Your task to perform on an android device: turn off notifications settings in the gmail app Image 0: 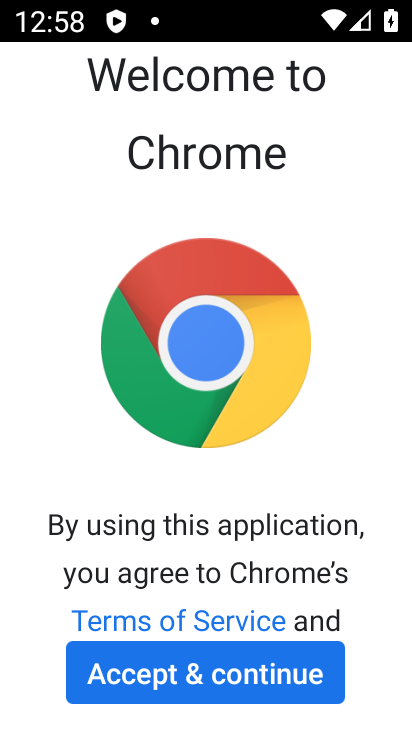
Step 0: click (357, 548)
Your task to perform on an android device: turn off notifications settings in the gmail app Image 1: 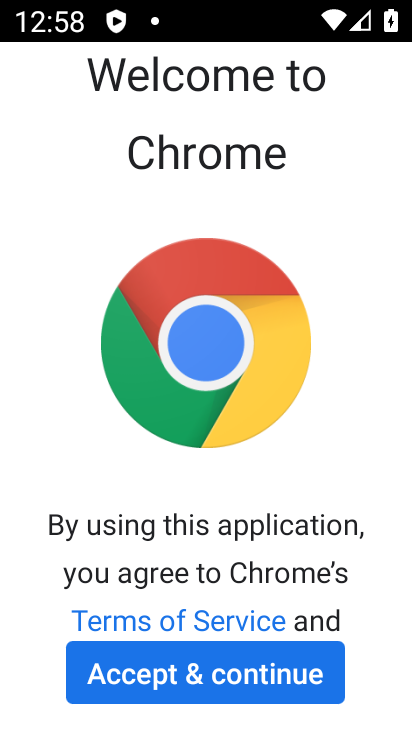
Step 1: press home button
Your task to perform on an android device: turn off notifications settings in the gmail app Image 2: 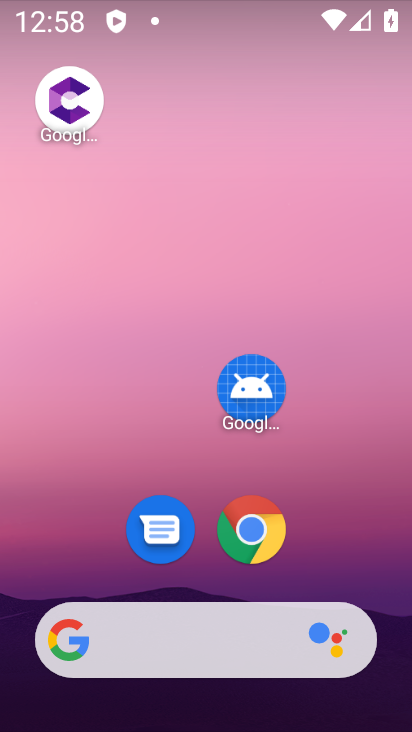
Step 2: drag from (232, 594) to (220, 76)
Your task to perform on an android device: turn off notifications settings in the gmail app Image 3: 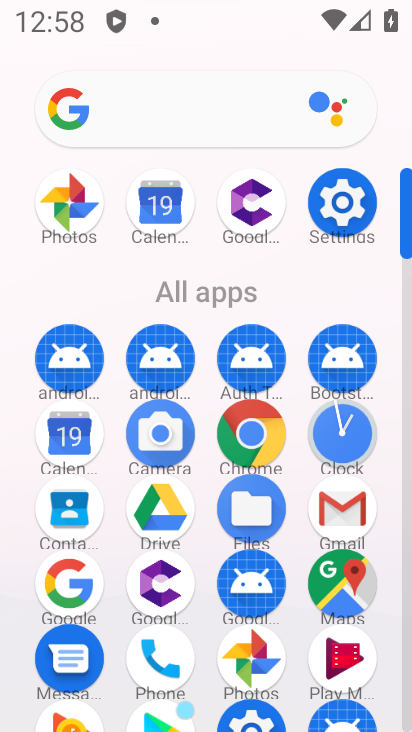
Step 3: click (339, 515)
Your task to perform on an android device: turn off notifications settings in the gmail app Image 4: 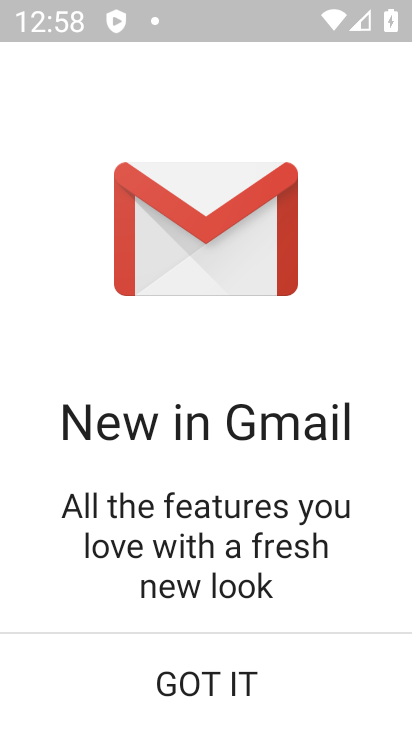
Step 4: click (236, 682)
Your task to perform on an android device: turn off notifications settings in the gmail app Image 5: 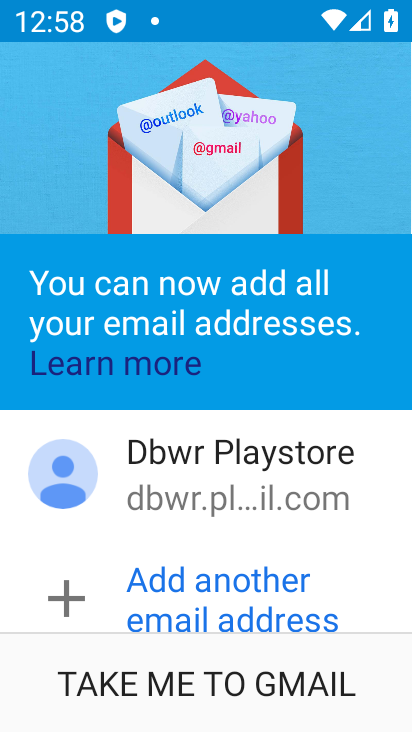
Step 5: click (250, 679)
Your task to perform on an android device: turn off notifications settings in the gmail app Image 6: 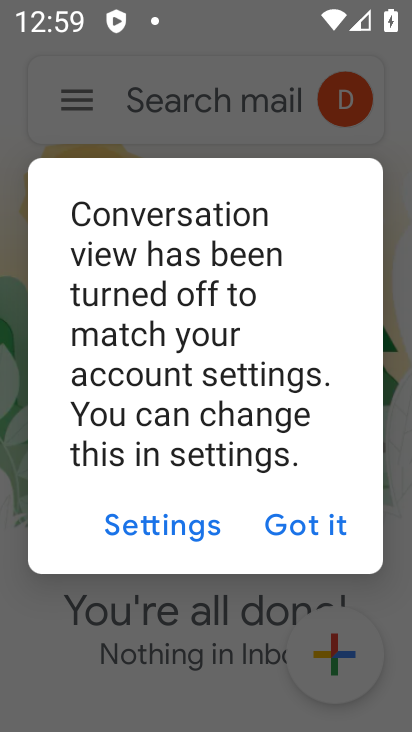
Step 6: click (295, 526)
Your task to perform on an android device: turn off notifications settings in the gmail app Image 7: 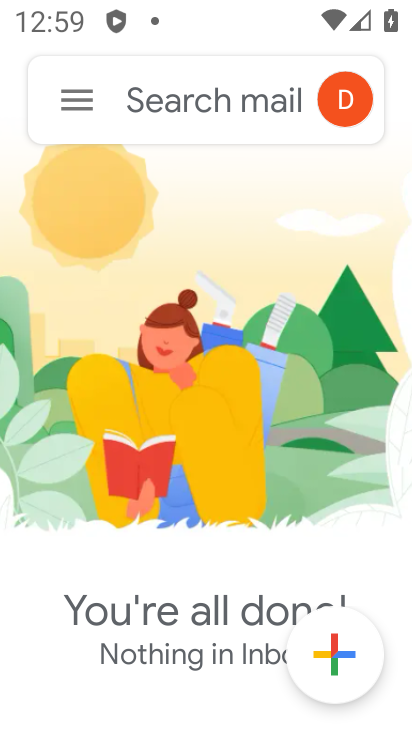
Step 7: click (77, 112)
Your task to perform on an android device: turn off notifications settings in the gmail app Image 8: 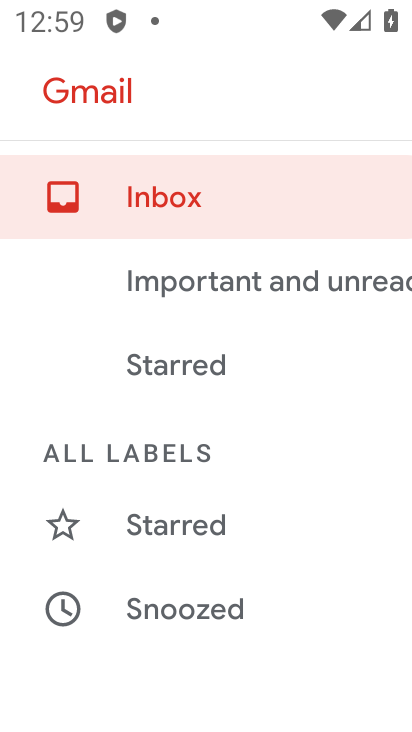
Step 8: drag from (161, 315) to (155, 0)
Your task to perform on an android device: turn off notifications settings in the gmail app Image 9: 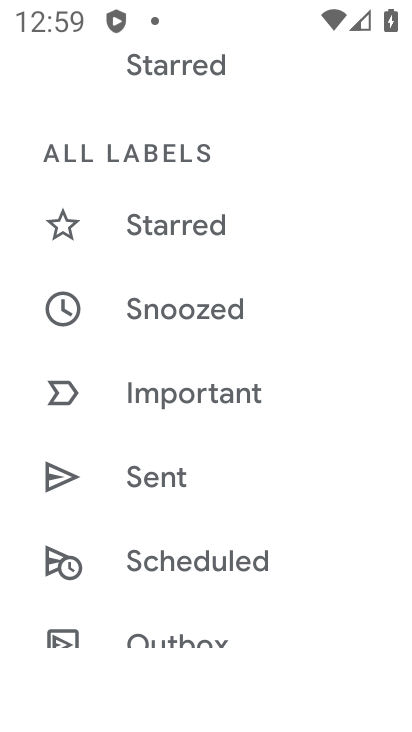
Step 9: drag from (218, 538) to (213, 249)
Your task to perform on an android device: turn off notifications settings in the gmail app Image 10: 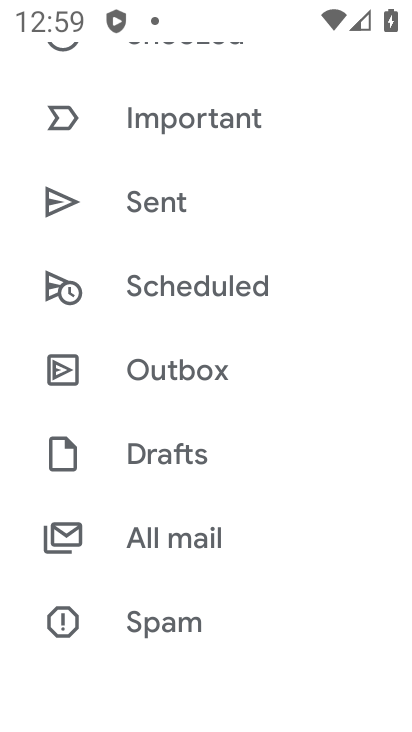
Step 10: drag from (188, 501) to (188, 199)
Your task to perform on an android device: turn off notifications settings in the gmail app Image 11: 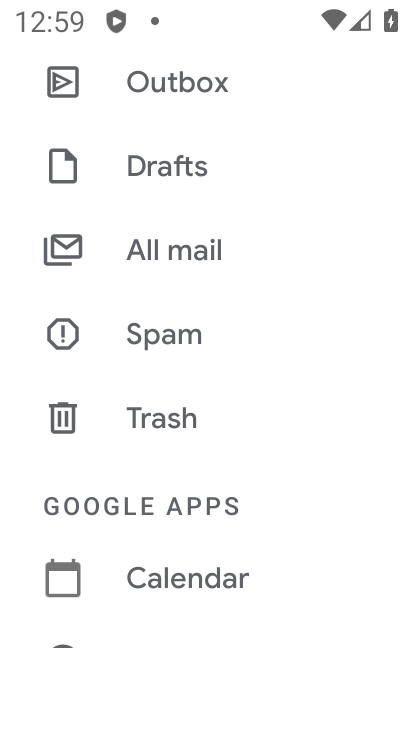
Step 11: drag from (204, 455) to (204, 156)
Your task to perform on an android device: turn off notifications settings in the gmail app Image 12: 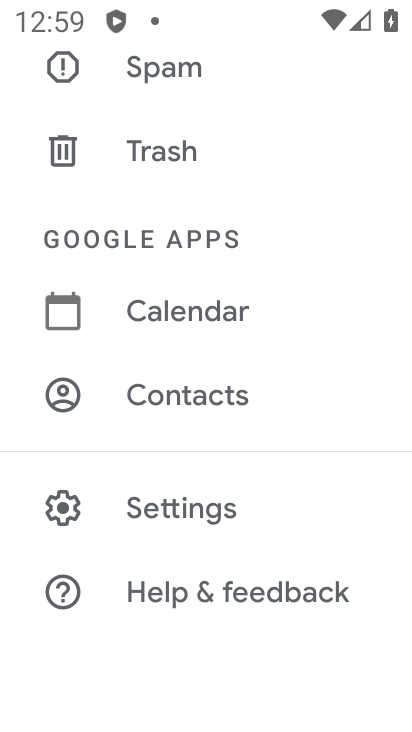
Step 12: click (210, 517)
Your task to perform on an android device: turn off notifications settings in the gmail app Image 13: 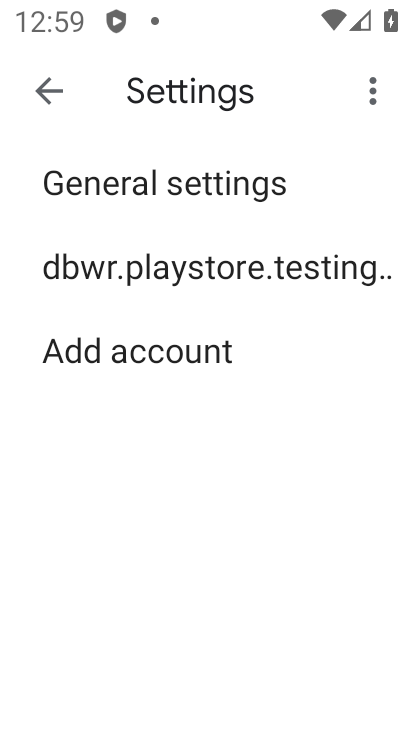
Step 13: click (229, 191)
Your task to perform on an android device: turn off notifications settings in the gmail app Image 14: 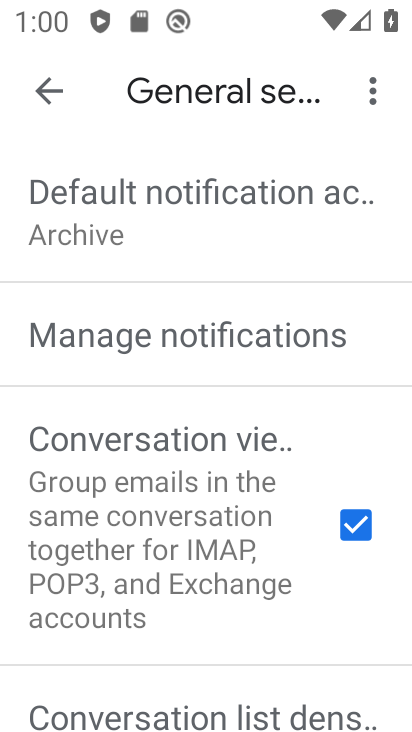
Step 14: click (165, 325)
Your task to perform on an android device: turn off notifications settings in the gmail app Image 15: 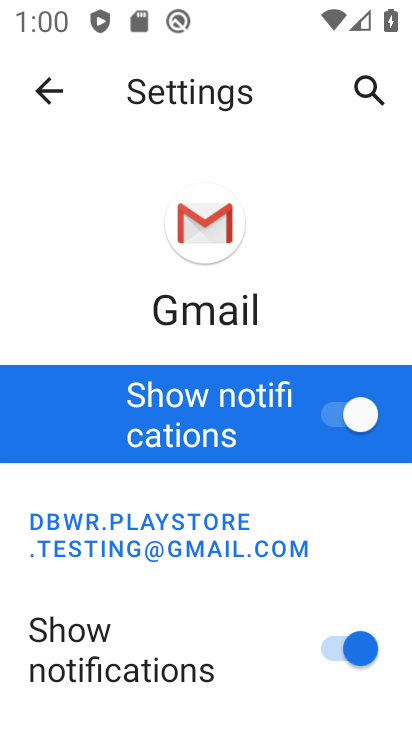
Step 15: click (341, 424)
Your task to perform on an android device: turn off notifications settings in the gmail app Image 16: 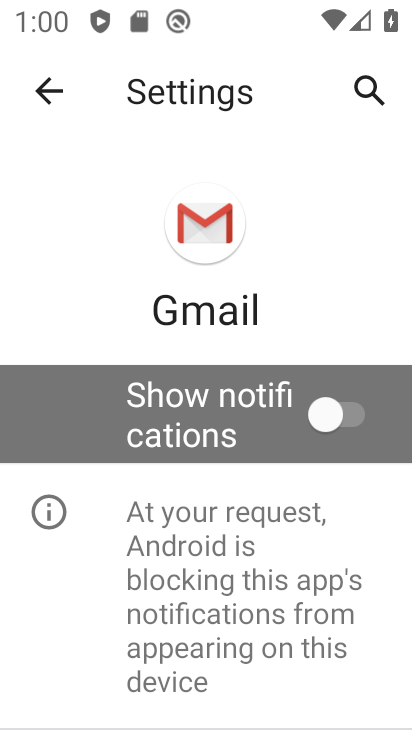
Step 16: task complete